Your task to perform on an android device: What's the weather going to be this weekend? Image 0: 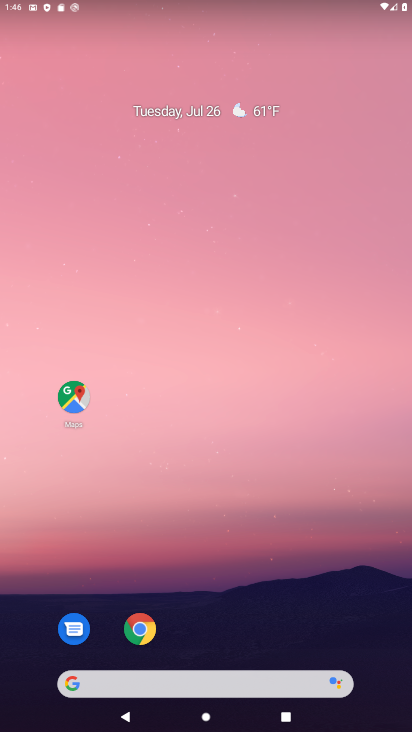
Step 0: drag from (249, 604) to (217, 124)
Your task to perform on an android device: What's the weather going to be this weekend? Image 1: 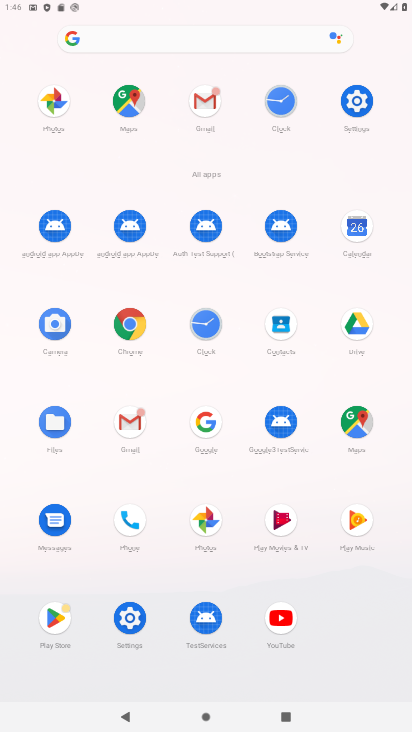
Step 1: click (205, 420)
Your task to perform on an android device: What's the weather going to be this weekend? Image 2: 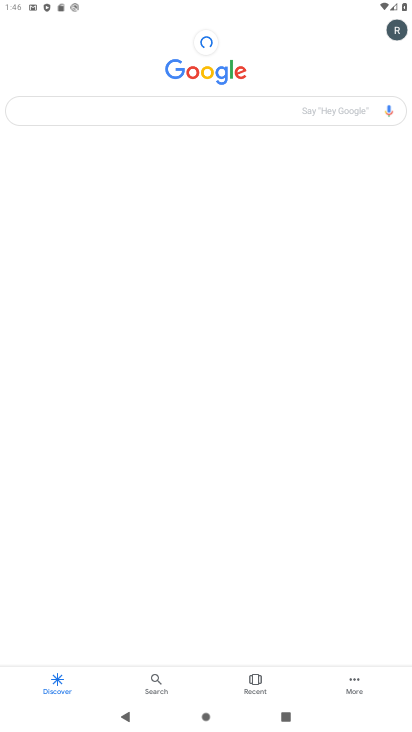
Step 2: click (142, 102)
Your task to perform on an android device: What's the weather going to be this weekend? Image 3: 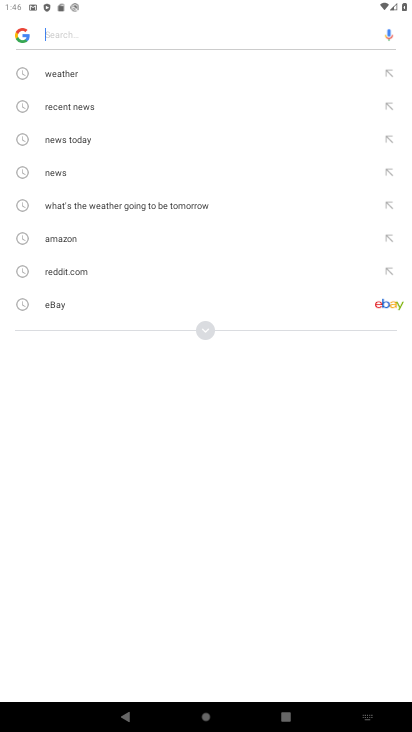
Step 3: click (59, 69)
Your task to perform on an android device: What's the weather going to be this weekend? Image 4: 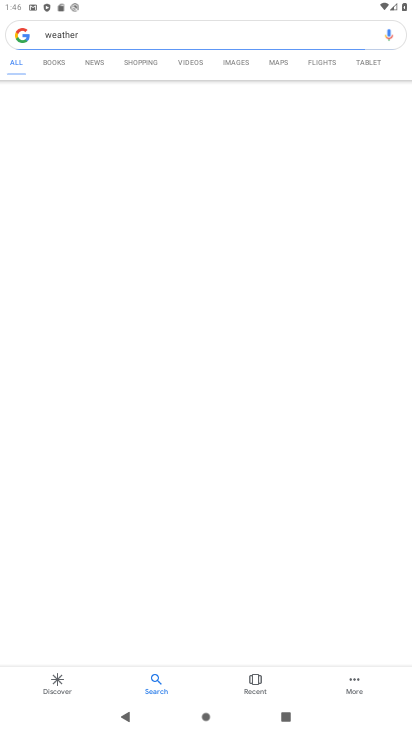
Step 4: task complete